Your task to perform on an android device: Go to Android settings Image 0: 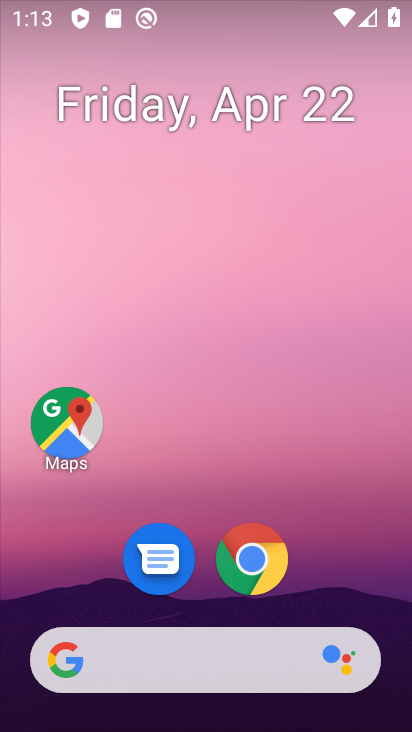
Step 0: drag from (347, 581) to (244, 21)
Your task to perform on an android device: Go to Android settings Image 1: 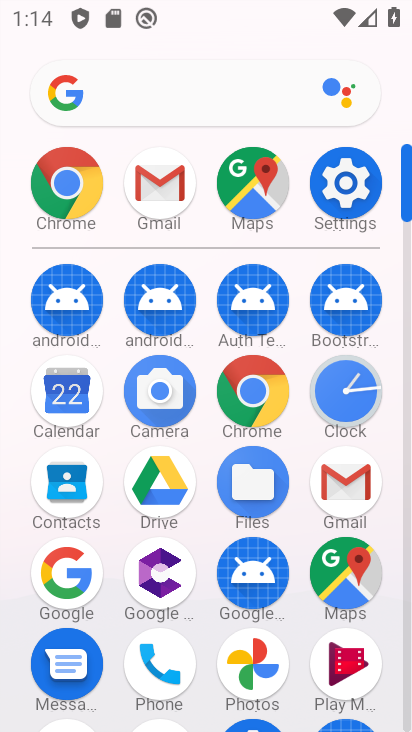
Step 1: click (350, 183)
Your task to perform on an android device: Go to Android settings Image 2: 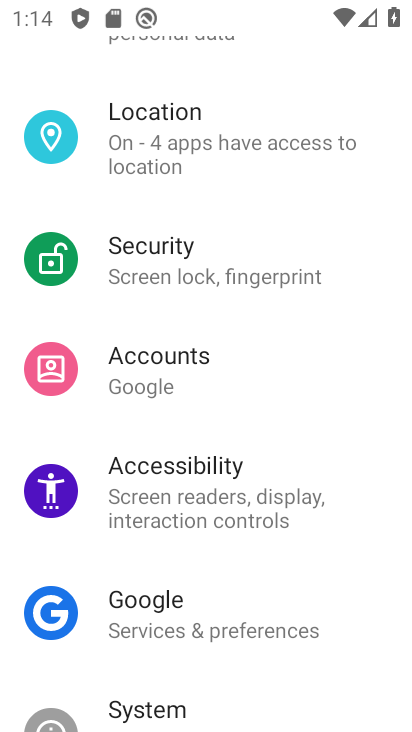
Step 2: drag from (194, 680) to (303, 154)
Your task to perform on an android device: Go to Android settings Image 3: 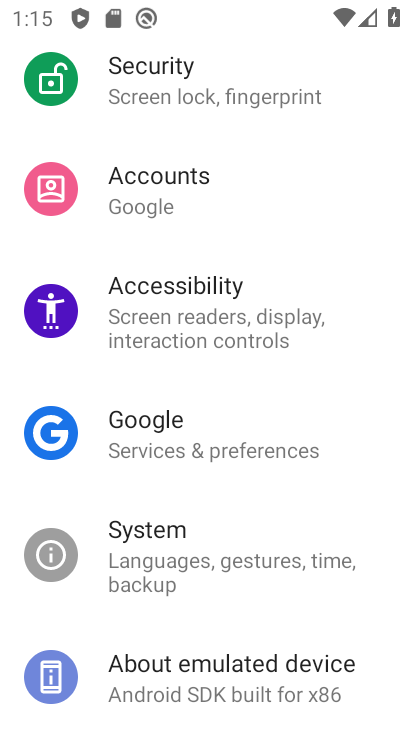
Step 3: drag from (198, 654) to (248, 246)
Your task to perform on an android device: Go to Android settings Image 4: 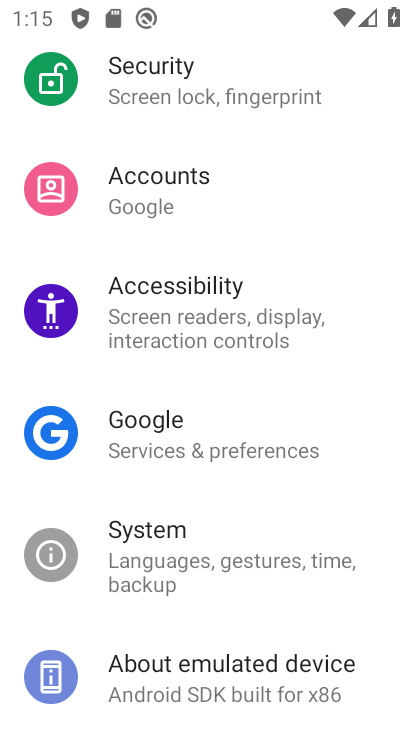
Step 4: click (215, 689)
Your task to perform on an android device: Go to Android settings Image 5: 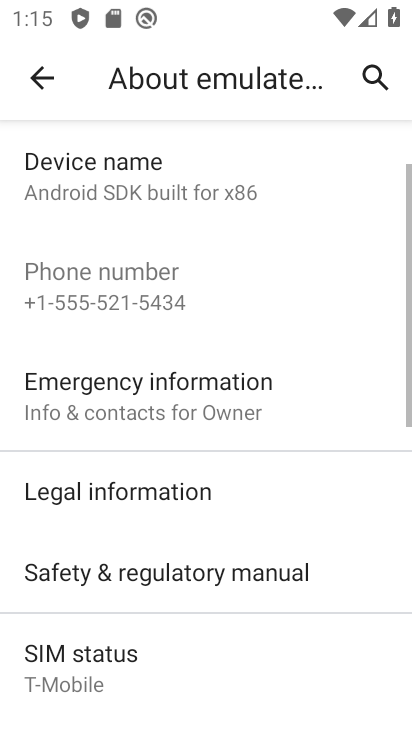
Step 5: drag from (126, 600) to (181, 209)
Your task to perform on an android device: Go to Android settings Image 6: 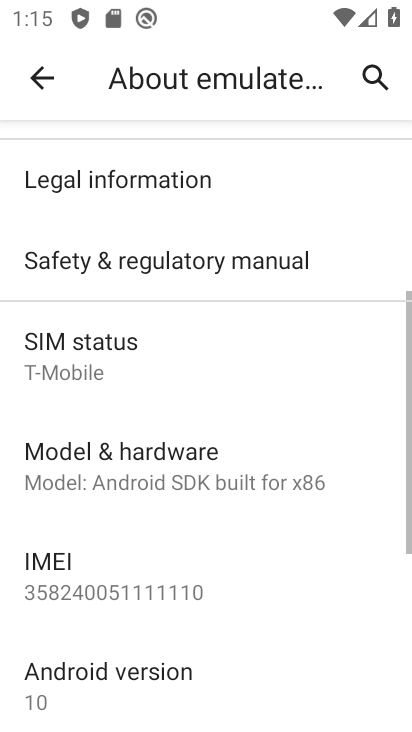
Step 6: click (146, 686)
Your task to perform on an android device: Go to Android settings Image 7: 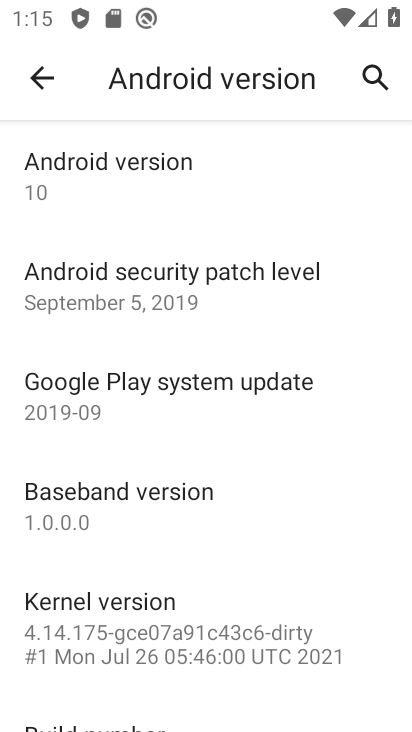
Step 7: task complete